Your task to perform on an android device: turn off sleep mode Image 0: 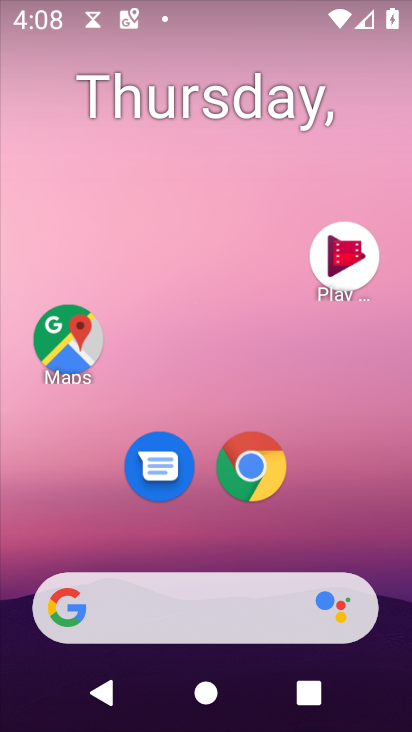
Step 0: drag from (260, 595) to (287, 9)
Your task to perform on an android device: turn off sleep mode Image 1: 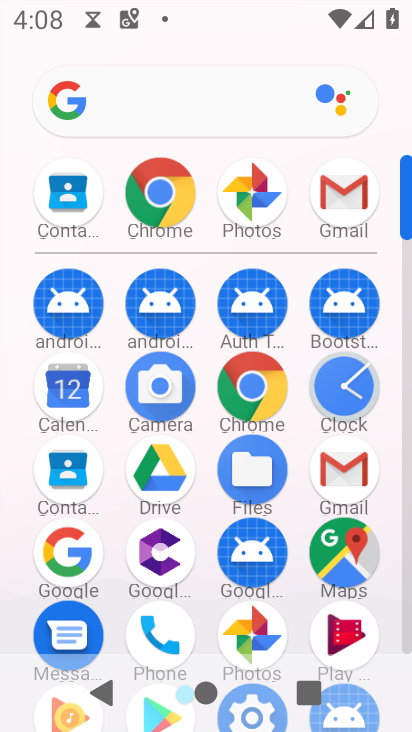
Step 1: drag from (301, 646) to (308, 285)
Your task to perform on an android device: turn off sleep mode Image 2: 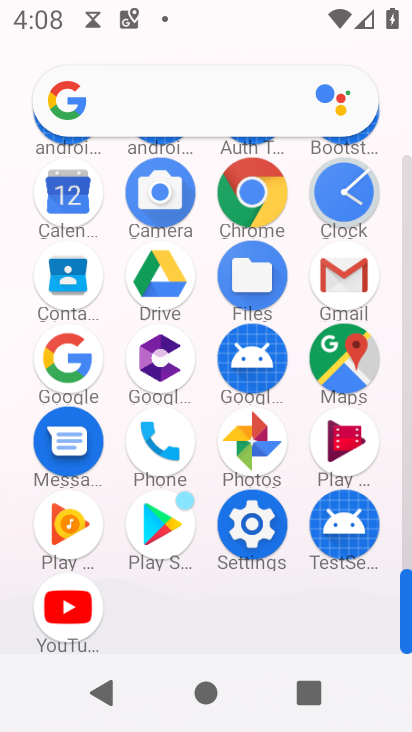
Step 2: click (257, 529)
Your task to perform on an android device: turn off sleep mode Image 3: 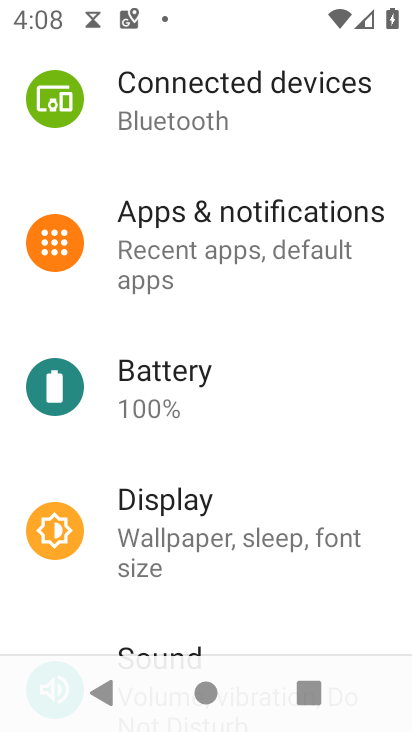
Step 3: click (209, 545)
Your task to perform on an android device: turn off sleep mode Image 4: 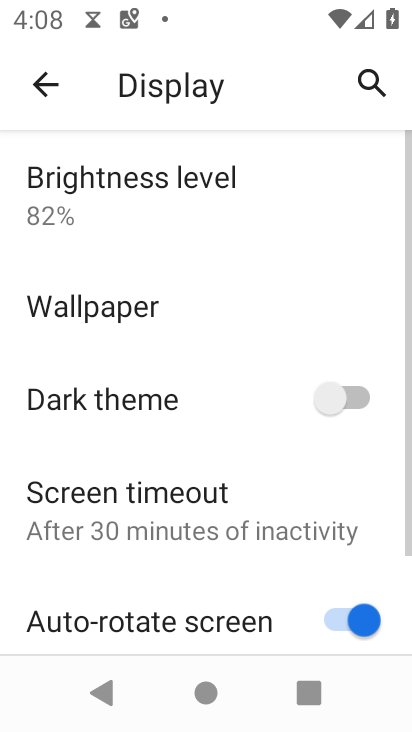
Step 4: task complete